Your task to perform on an android device: turn off javascript in the chrome app Image 0: 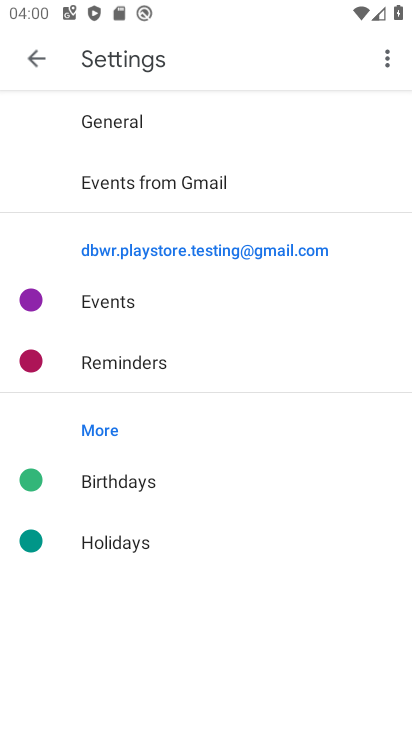
Step 0: press home button
Your task to perform on an android device: turn off javascript in the chrome app Image 1: 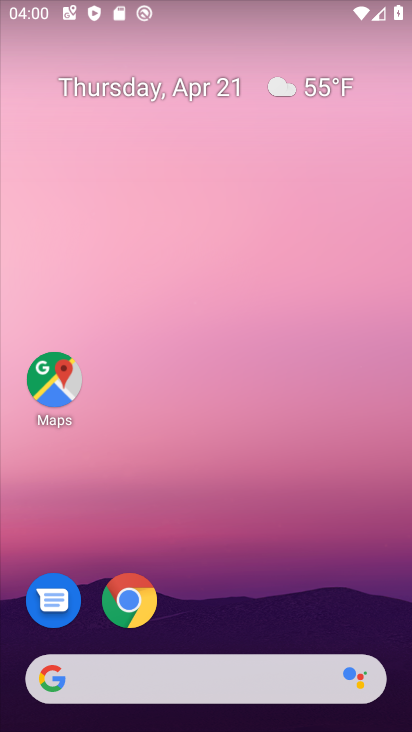
Step 1: click (129, 594)
Your task to perform on an android device: turn off javascript in the chrome app Image 2: 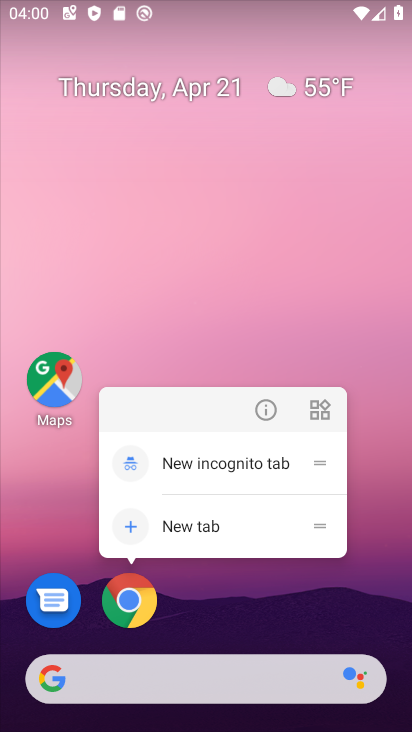
Step 2: click (131, 589)
Your task to perform on an android device: turn off javascript in the chrome app Image 3: 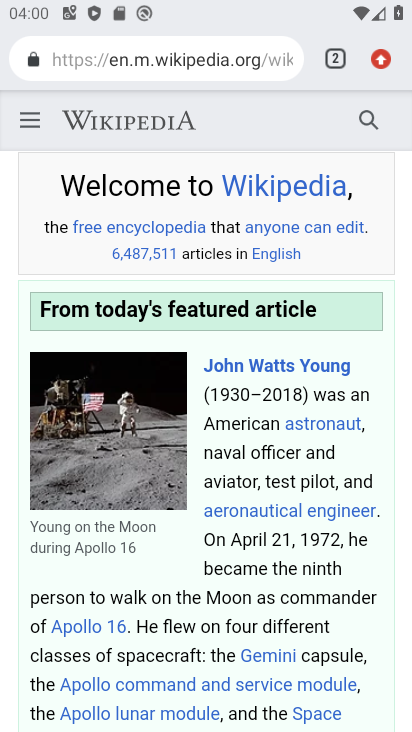
Step 3: click (388, 55)
Your task to perform on an android device: turn off javascript in the chrome app Image 4: 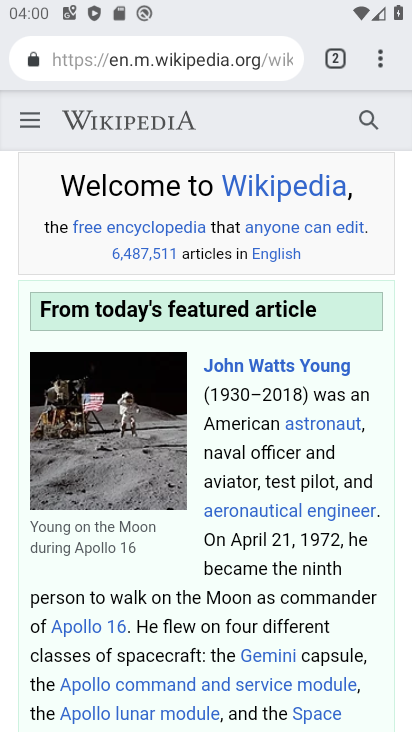
Step 4: click (387, 57)
Your task to perform on an android device: turn off javascript in the chrome app Image 5: 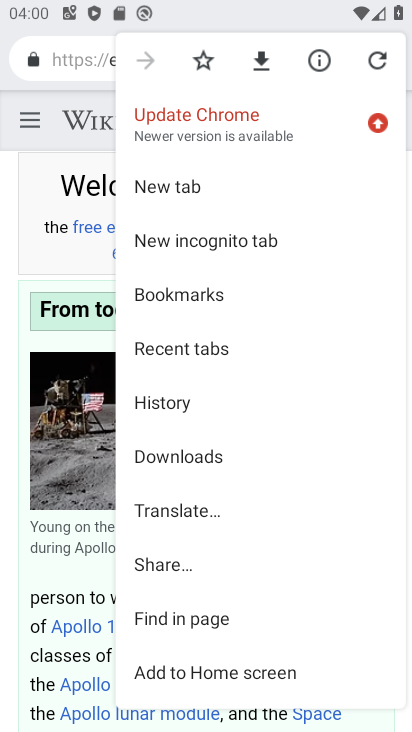
Step 5: drag from (205, 653) to (148, 483)
Your task to perform on an android device: turn off javascript in the chrome app Image 6: 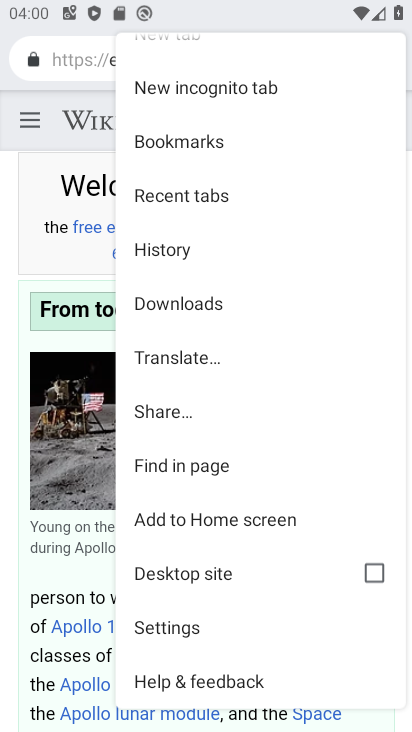
Step 6: click (179, 627)
Your task to perform on an android device: turn off javascript in the chrome app Image 7: 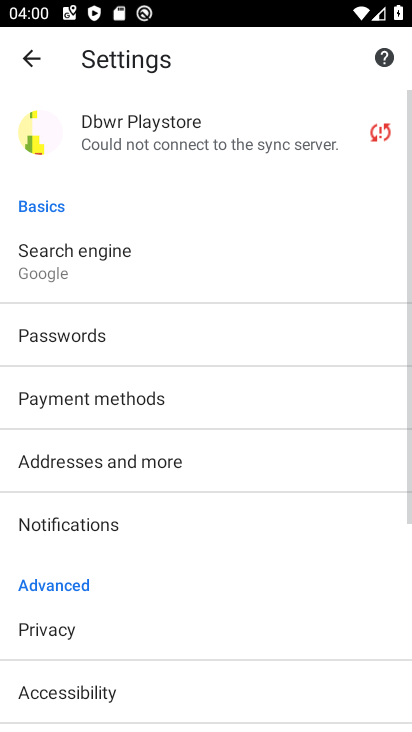
Step 7: drag from (153, 632) to (152, 447)
Your task to perform on an android device: turn off javascript in the chrome app Image 8: 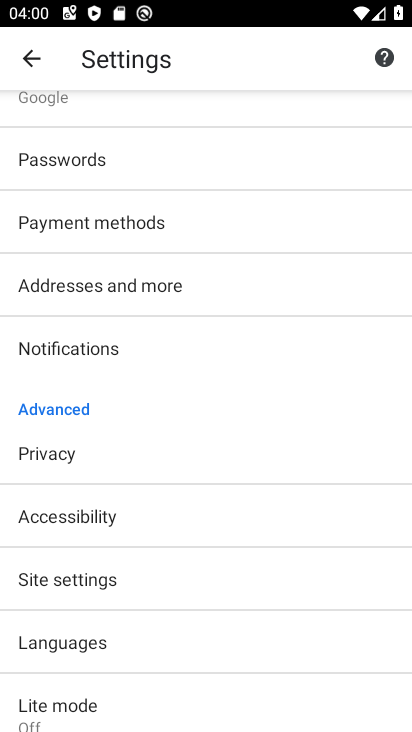
Step 8: click (127, 586)
Your task to perform on an android device: turn off javascript in the chrome app Image 9: 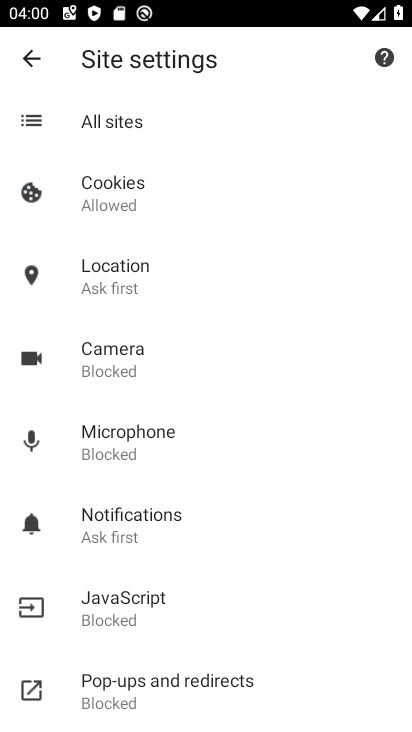
Step 9: click (115, 619)
Your task to perform on an android device: turn off javascript in the chrome app Image 10: 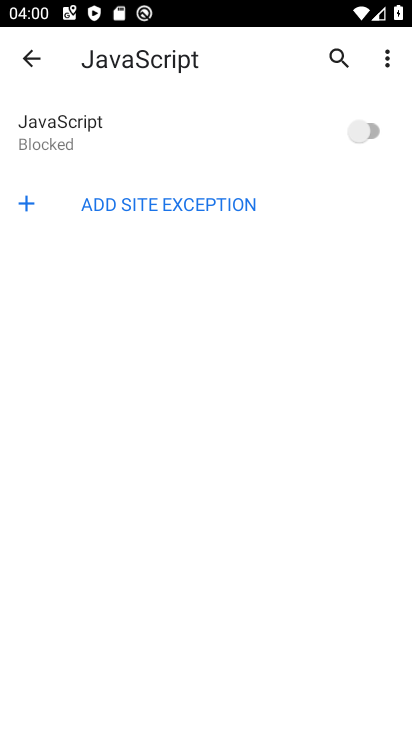
Step 10: task complete